Your task to perform on an android device: all mails in gmail Image 0: 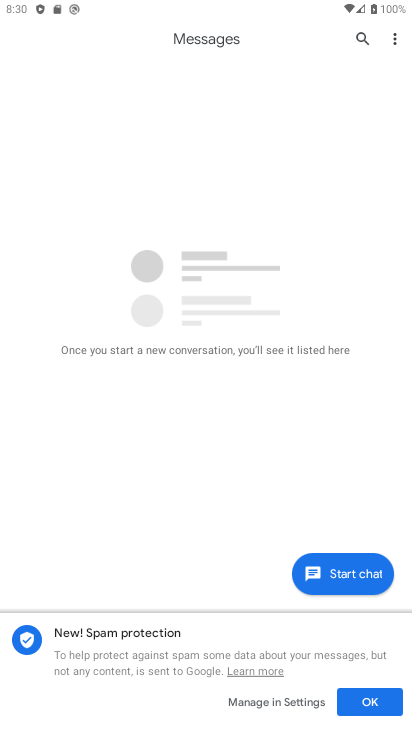
Step 0: drag from (210, 542) to (304, 231)
Your task to perform on an android device: all mails in gmail Image 1: 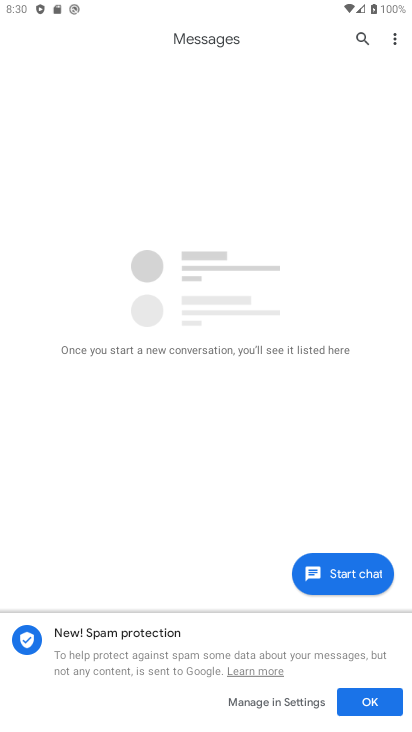
Step 1: press home button
Your task to perform on an android device: all mails in gmail Image 2: 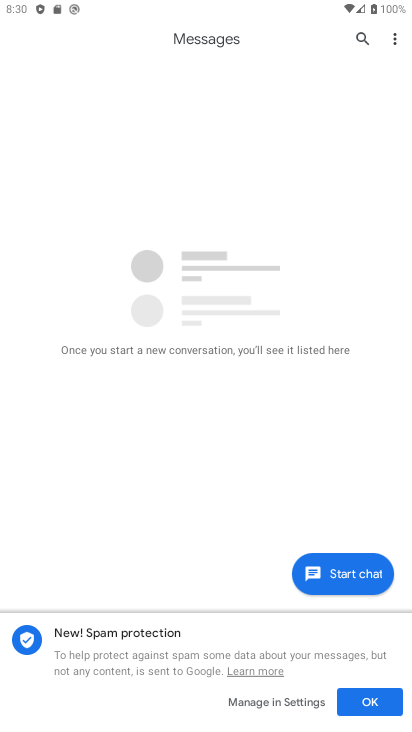
Step 2: click (375, 433)
Your task to perform on an android device: all mails in gmail Image 3: 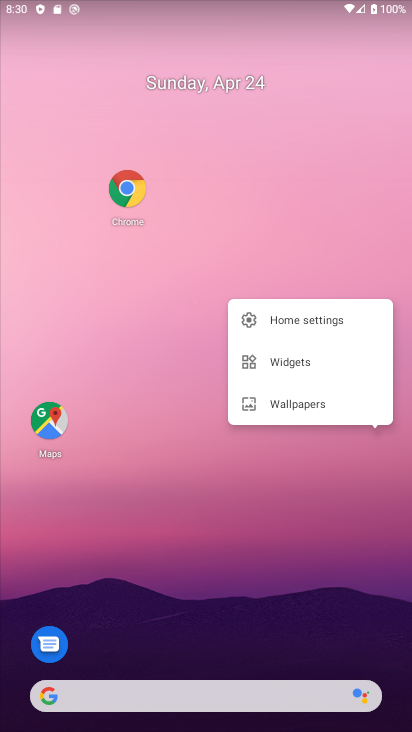
Step 3: click (327, 554)
Your task to perform on an android device: all mails in gmail Image 4: 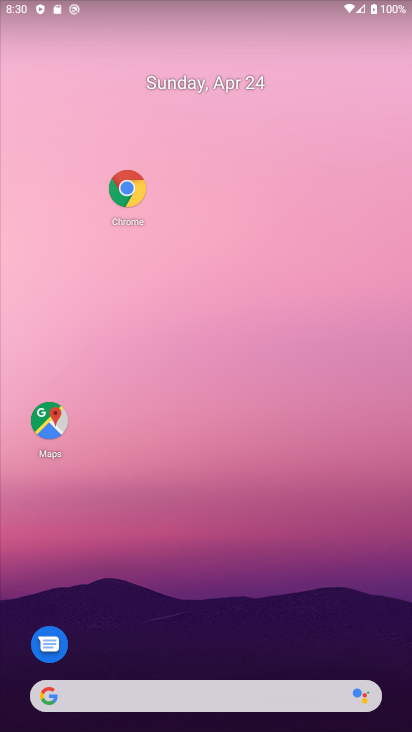
Step 4: drag from (246, 604) to (326, 192)
Your task to perform on an android device: all mails in gmail Image 5: 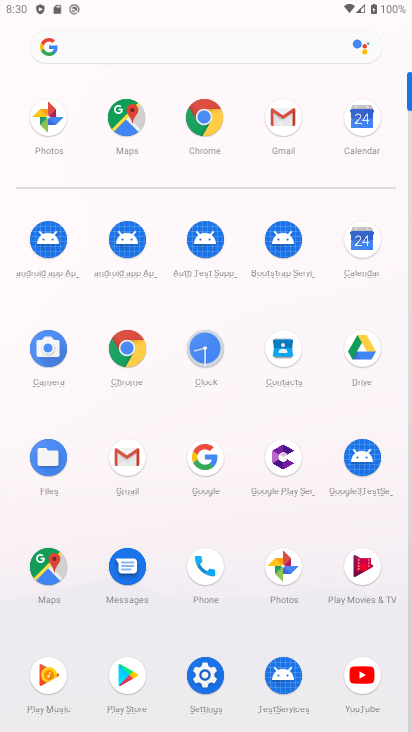
Step 5: click (128, 454)
Your task to perform on an android device: all mails in gmail Image 6: 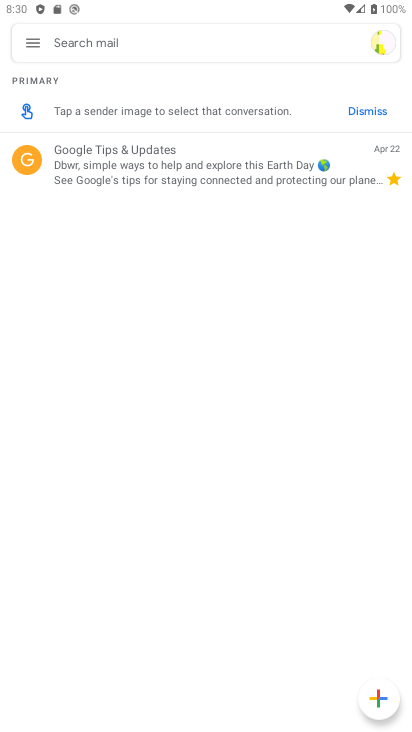
Step 6: click (42, 38)
Your task to perform on an android device: all mails in gmail Image 7: 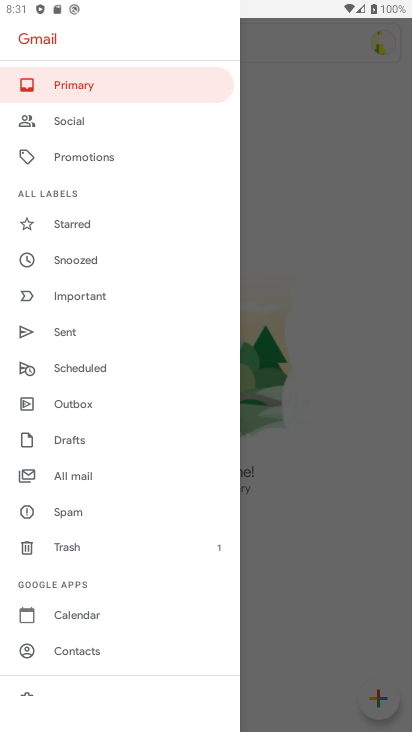
Step 7: click (62, 473)
Your task to perform on an android device: all mails in gmail Image 8: 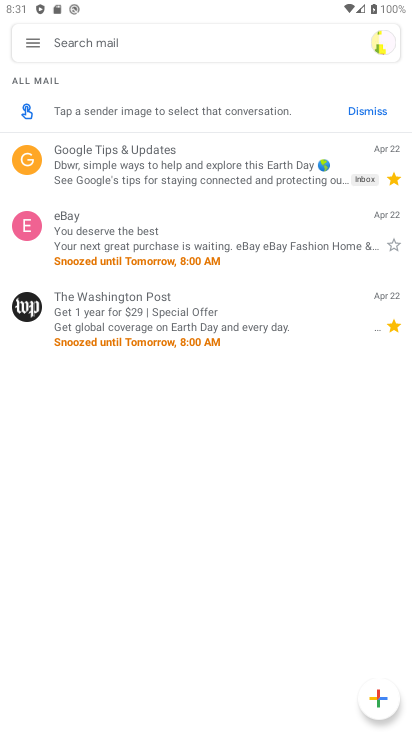
Step 8: task complete